Your task to perform on an android device: Open internet settings Image 0: 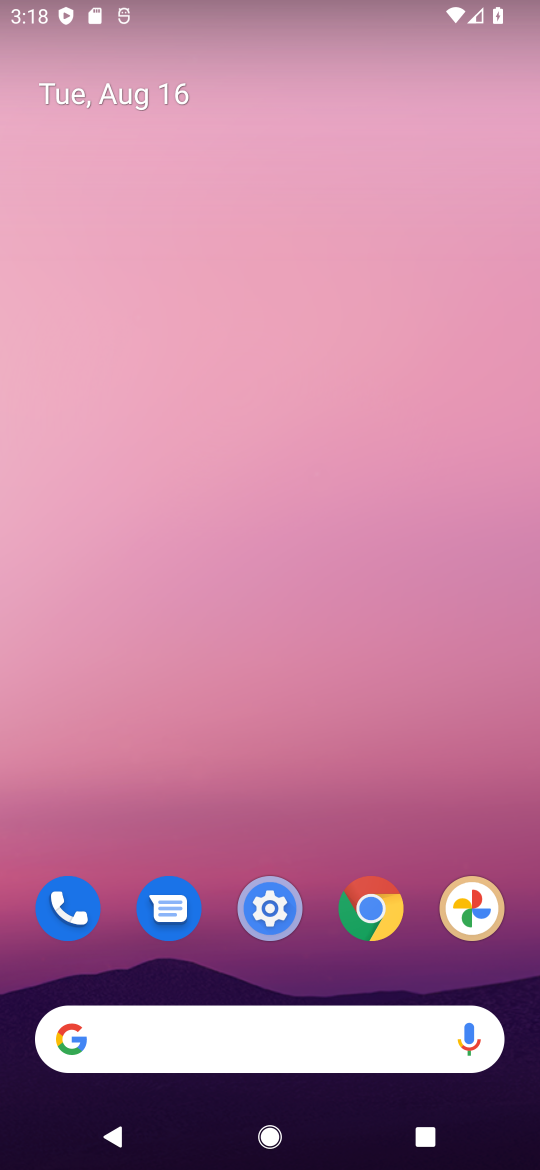
Step 0: press home button
Your task to perform on an android device: Open internet settings Image 1: 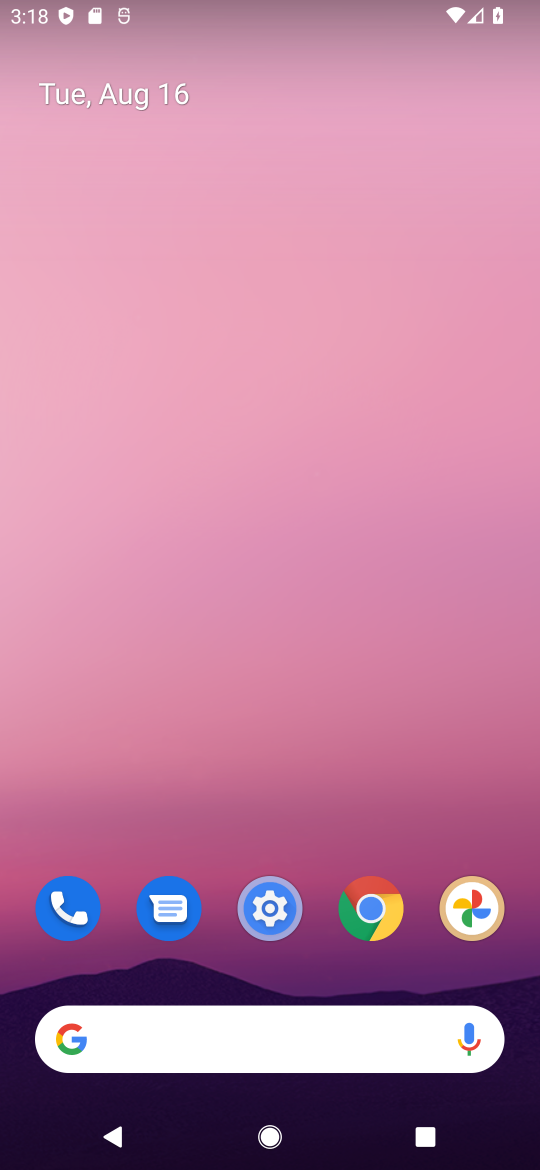
Step 1: drag from (318, 863) to (291, 95)
Your task to perform on an android device: Open internet settings Image 2: 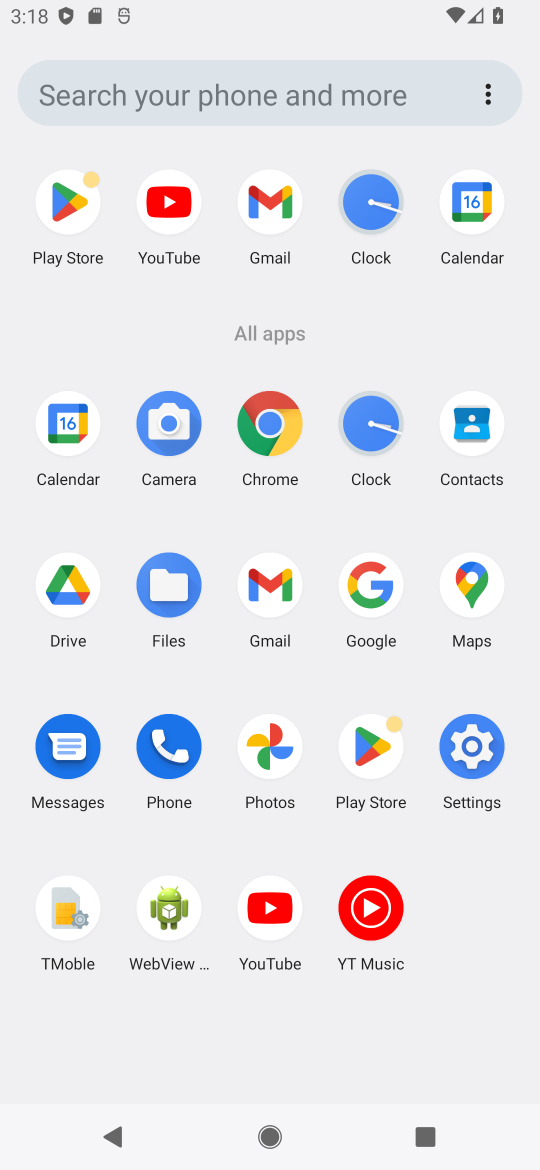
Step 2: click (468, 736)
Your task to perform on an android device: Open internet settings Image 3: 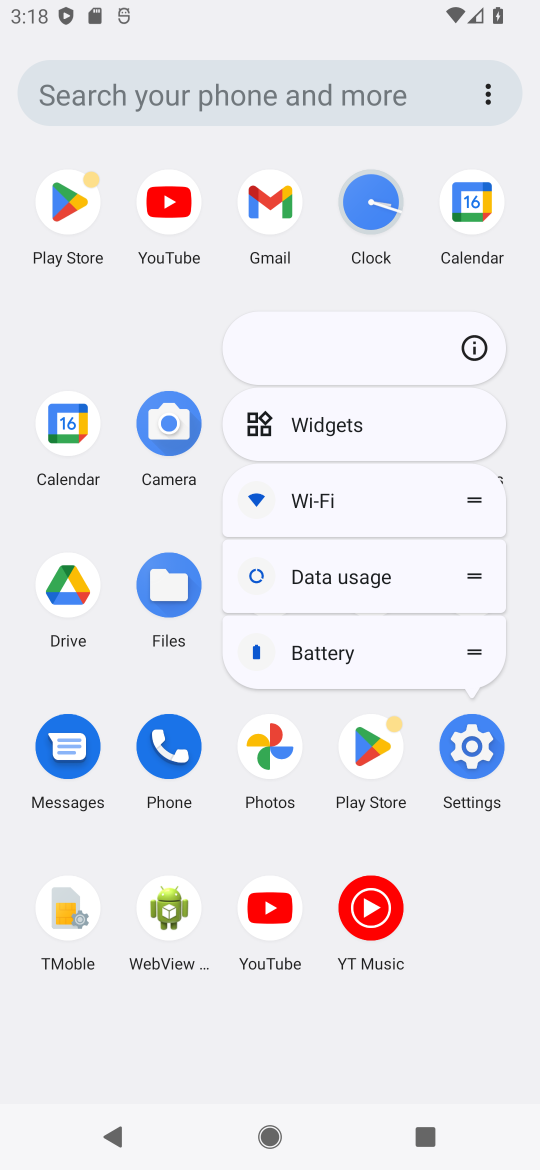
Step 3: click (473, 746)
Your task to perform on an android device: Open internet settings Image 4: 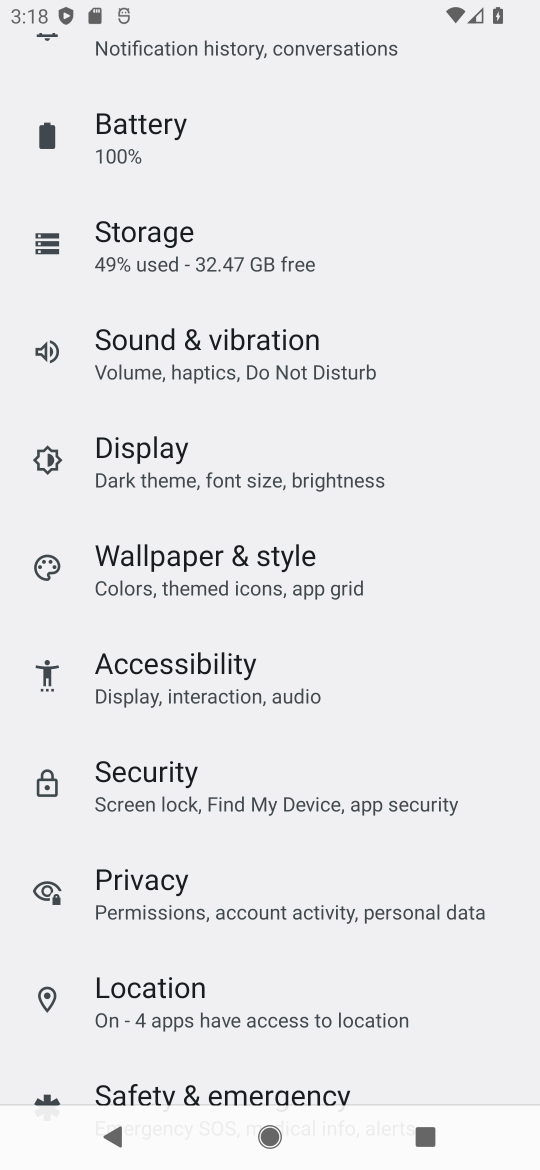
Step 4: drag from (214, 173) to (286, 930)
Your task to perform on an android device: Open internet settings Image 5: 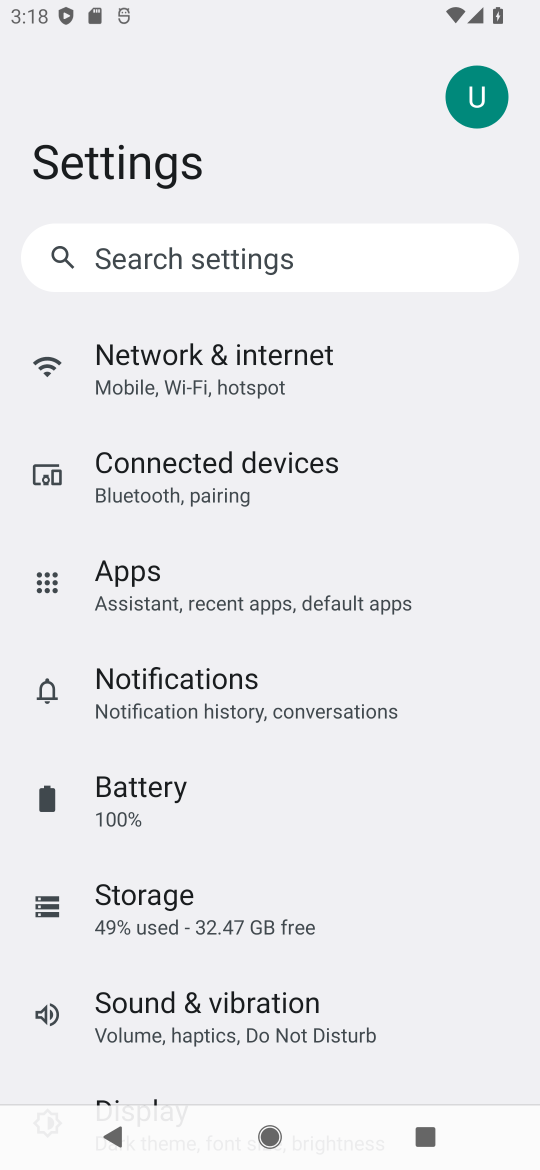
Step 5: click (305, 282)
Your task to perform on an android device: Open internet settings Image 6: 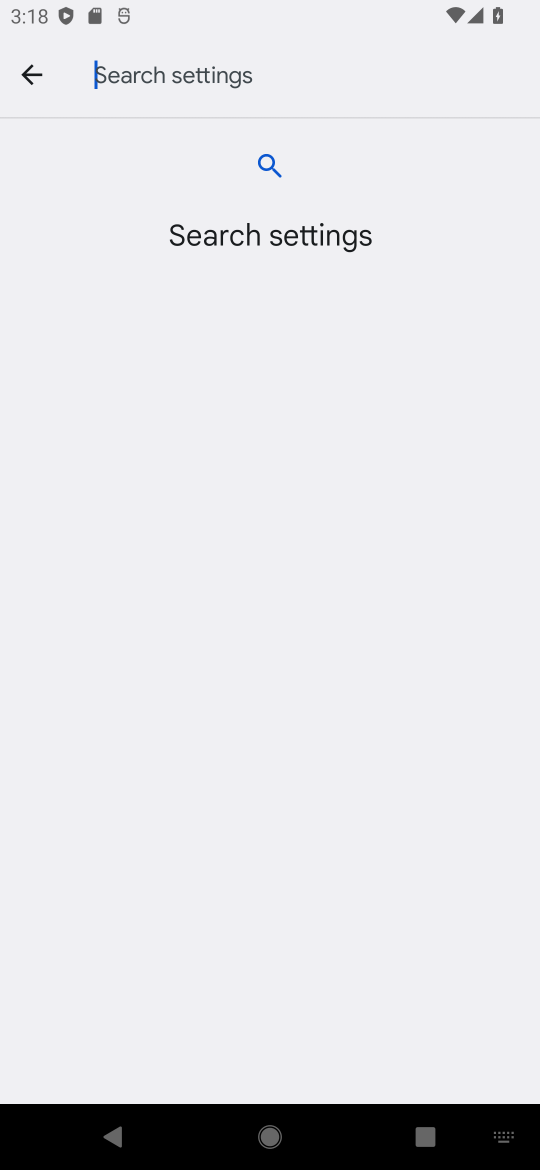
Step 6: click (20, 69)
Your task to perform on an android device: Open internet settings Image 7: 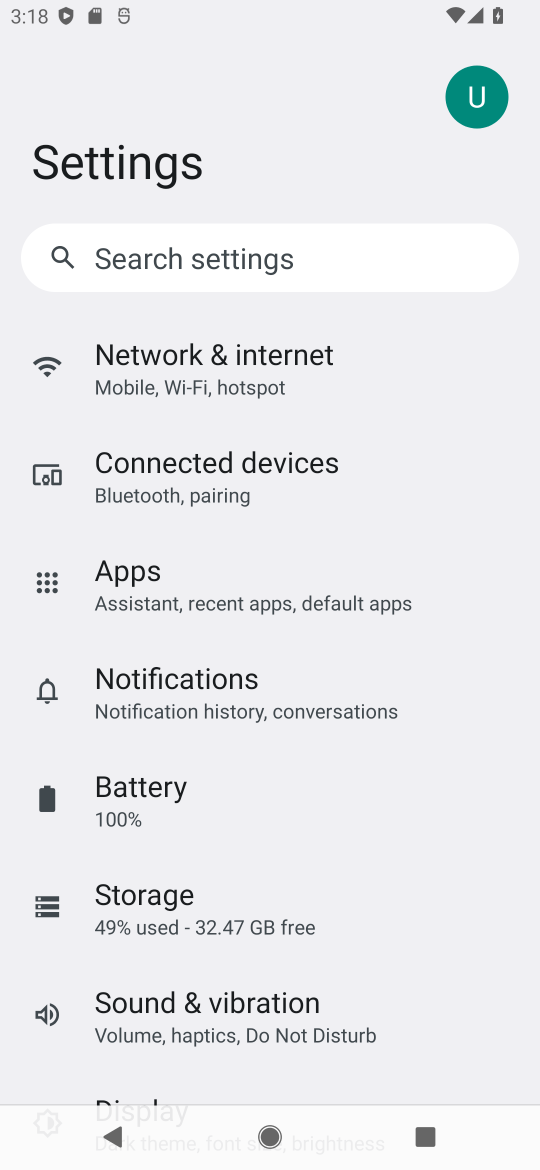
Step 7: click (255, 371)
Your task to perform on an android device: Open internet settings Image 8: 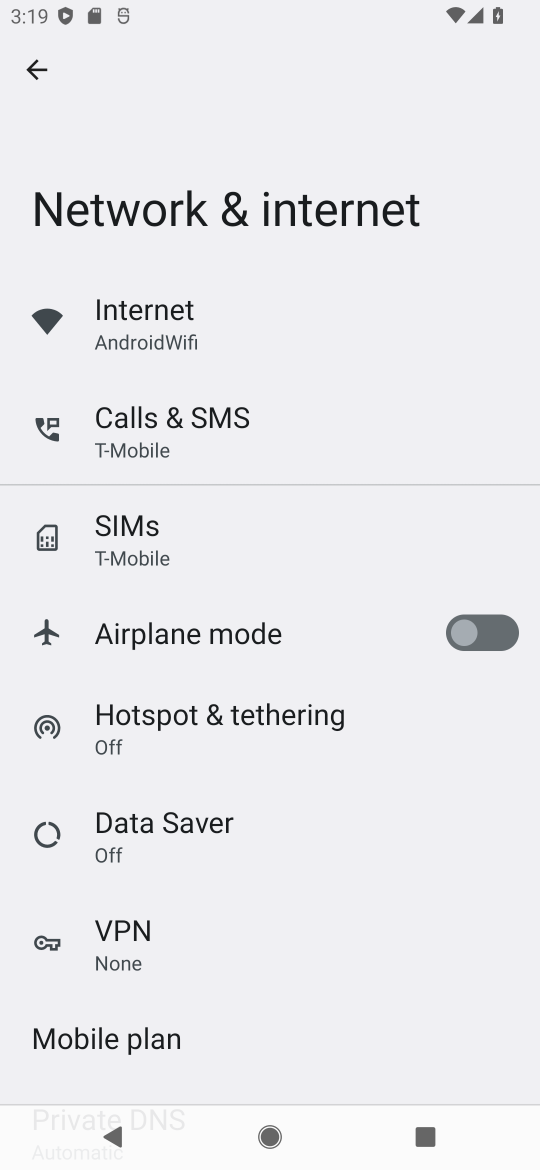
Step 8: task complete